Your task to perform on an android device: Go to battery settings Image 0: 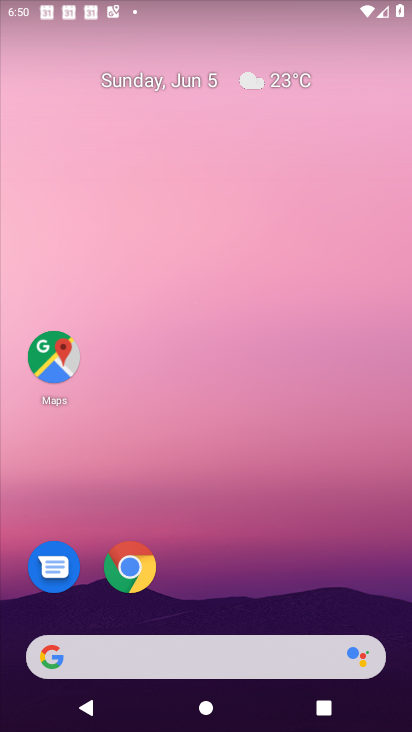
Step 0: drag from (409, 633) to (238, 0)
Your task to perform on an android device: Go to battery settings Image 1: 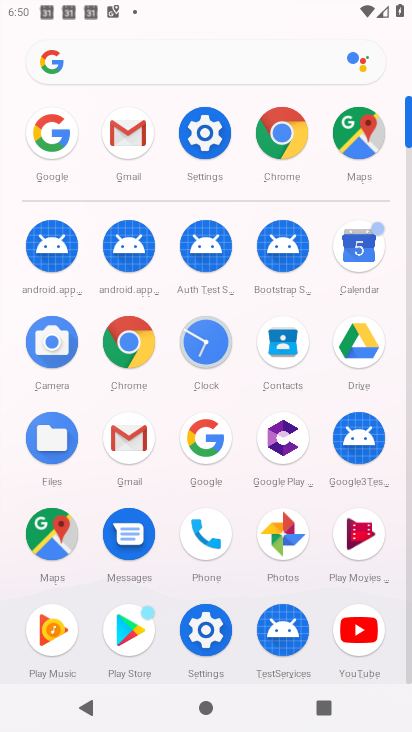
Step 1: click (212, 151)
Your task to perform on an android device: Go to battery settings Image 2: 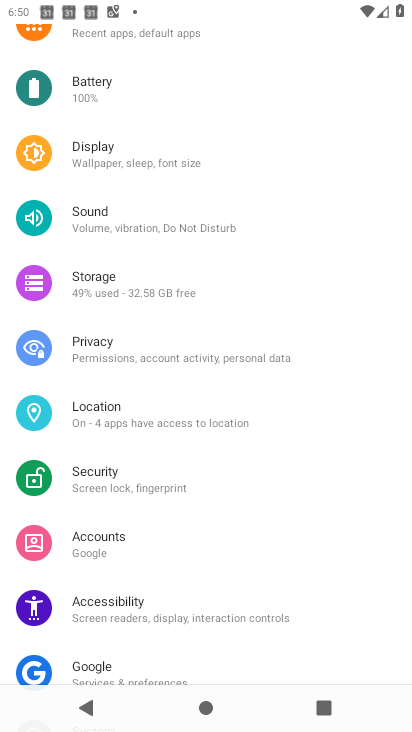
Step 2: click (144, 112)
Your task to perform on an android device: Go to battery settings Image 3: 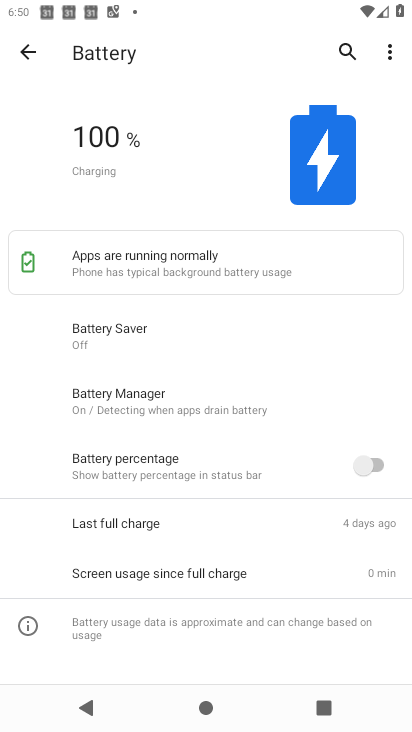
Step 3: task complete